Your task to perform on an android device: Check the news Image 0: 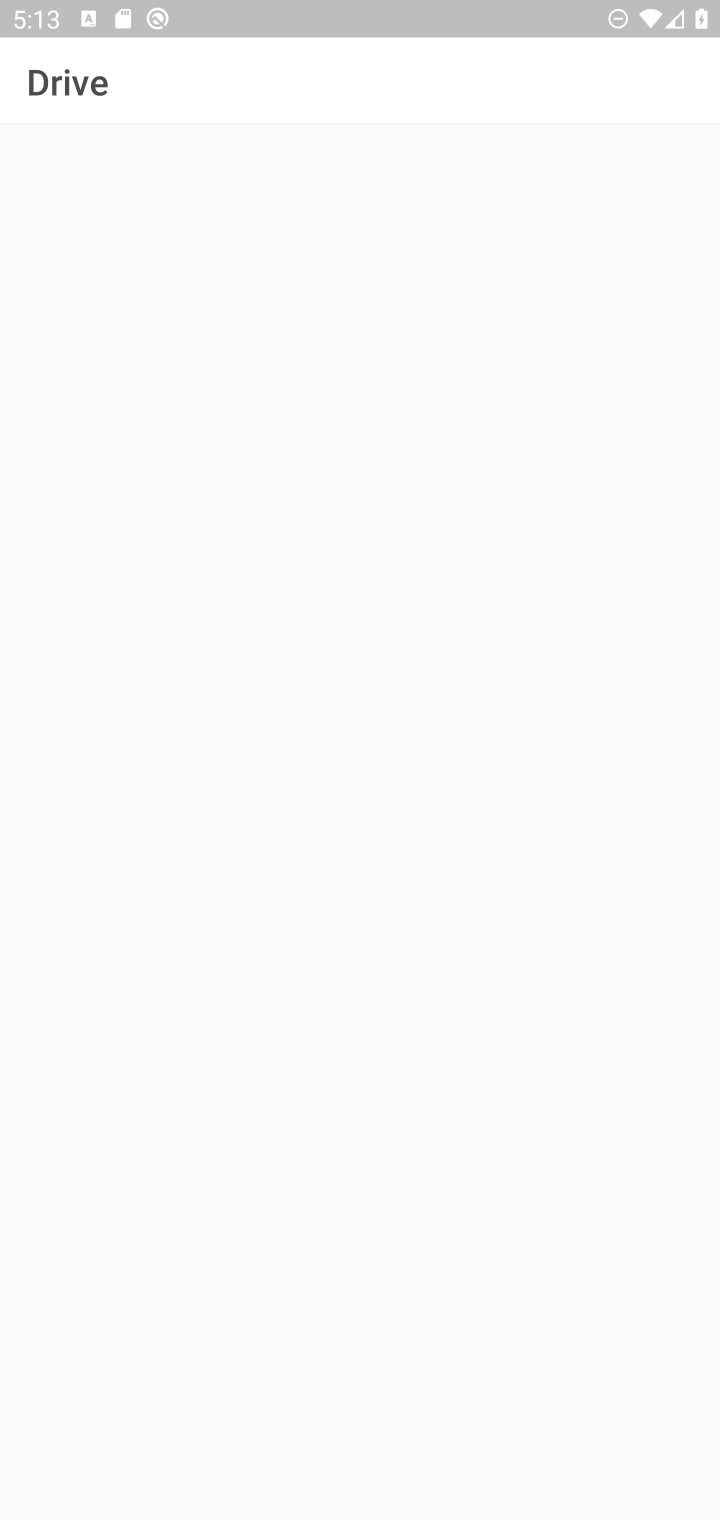
Step 0: press home button
Your task to perform on an android device: Check the news Image 1: 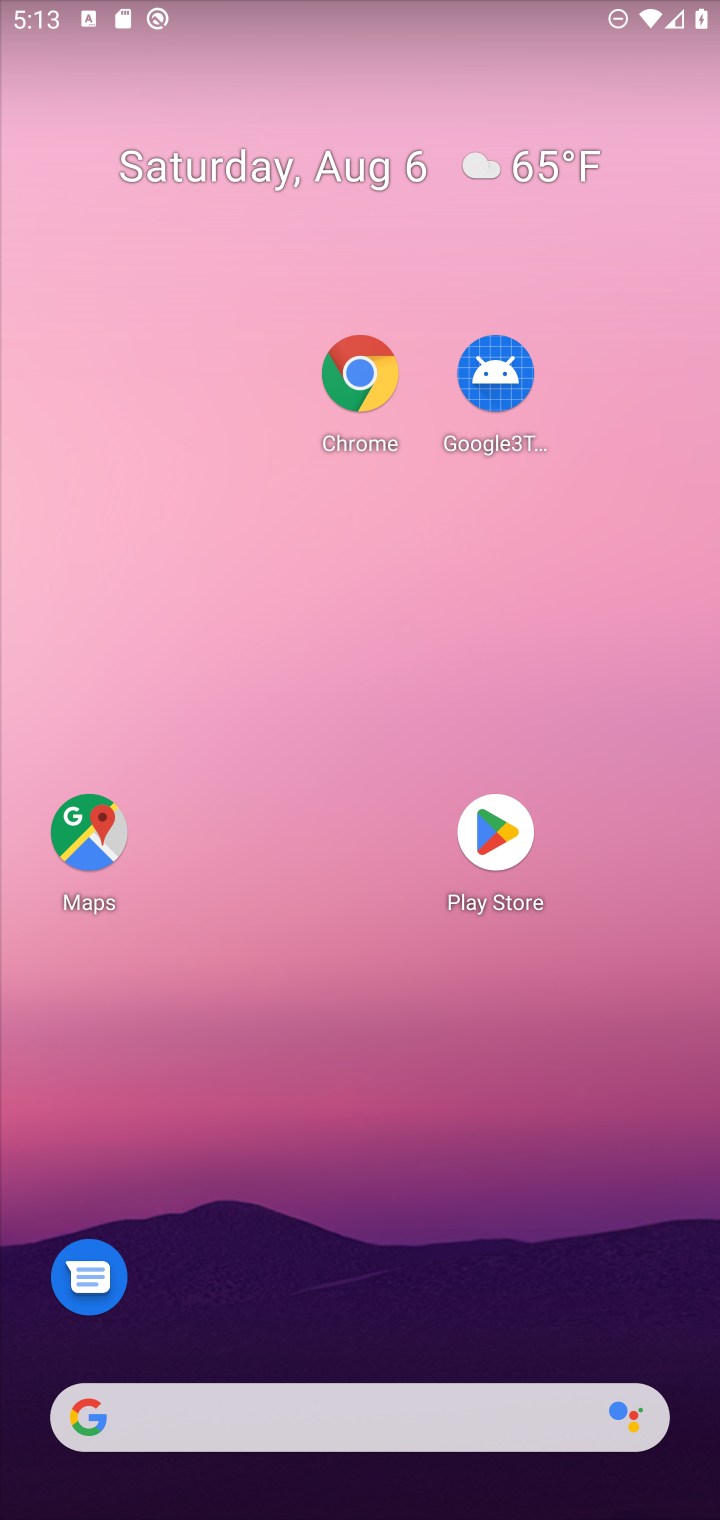
Step 1: drag from (295, 1403) to (422, 107)
Your task to perform on an android device: Check the news Image 2: 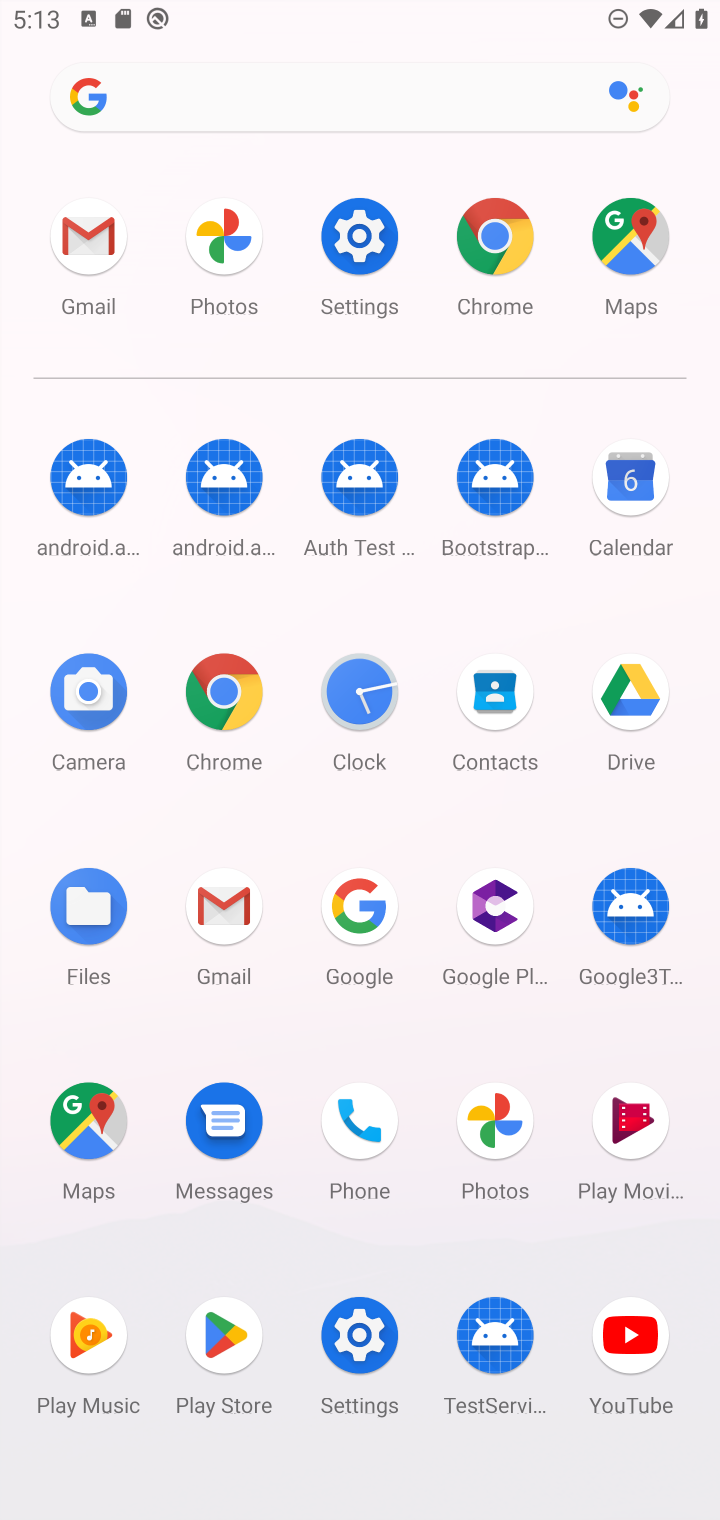
Step 2: click (220, 694)
Your task to perform on an android device: Check the news Image 3: 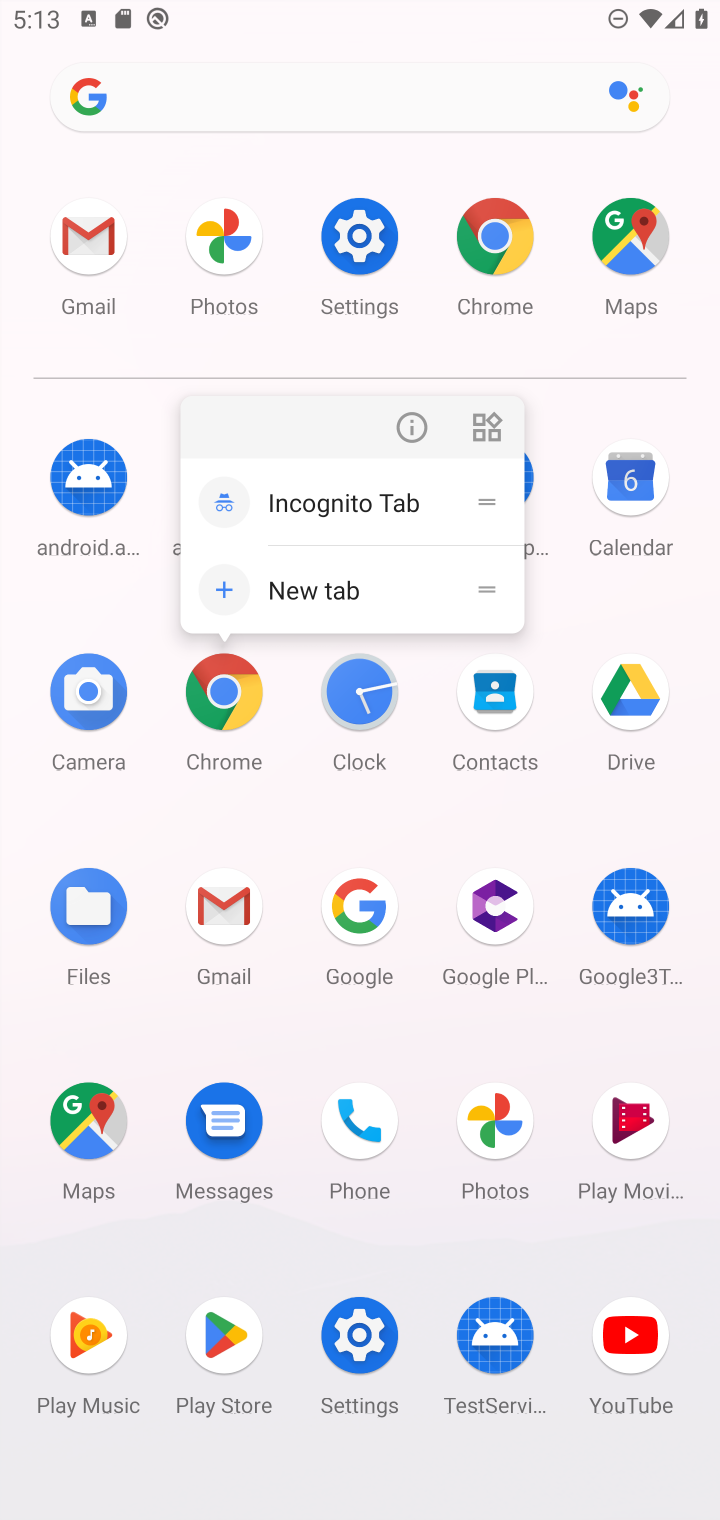
Step 3: click (215, 719)
Your task to perform on an android device: Check the news Image 4: 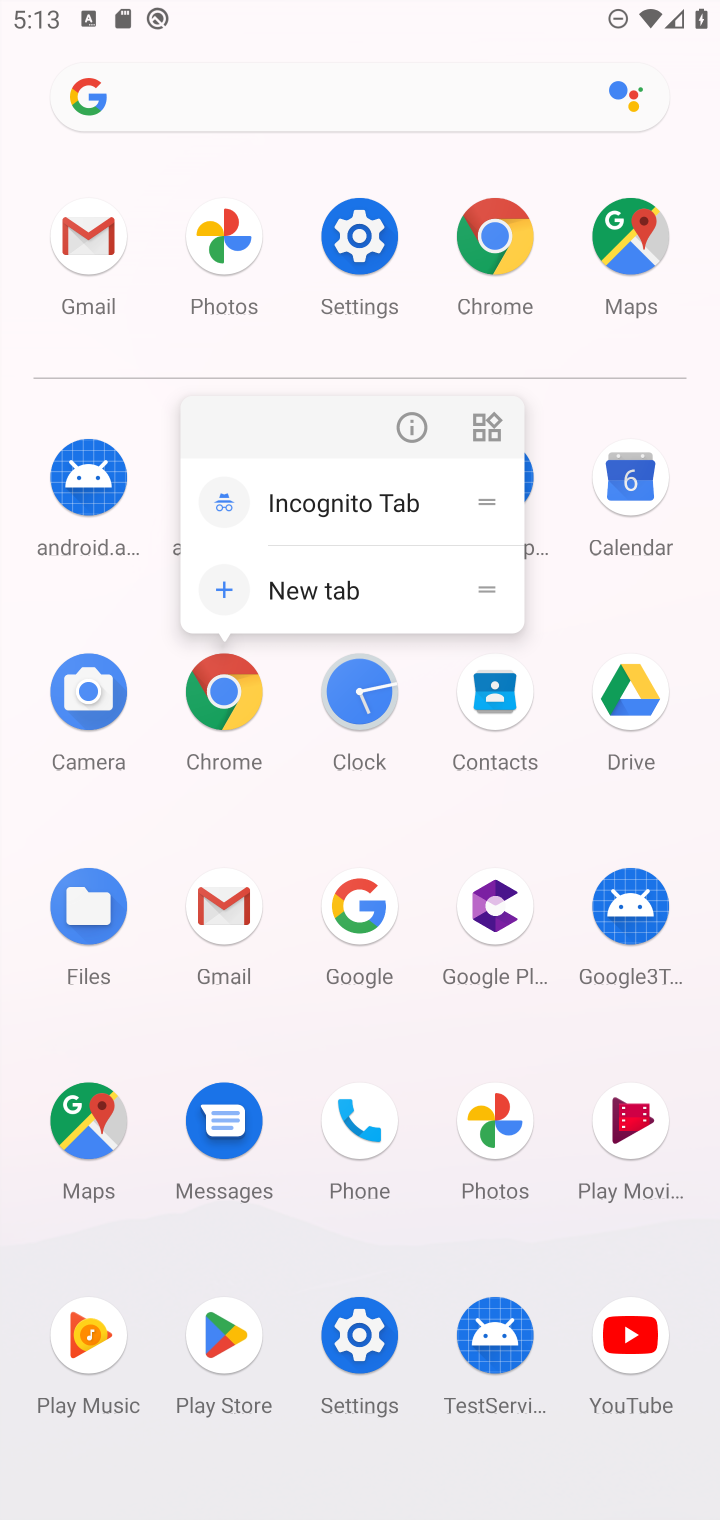
Step 4: click (248, 666)
Your task to perform on an android device: Check the news Image 5: 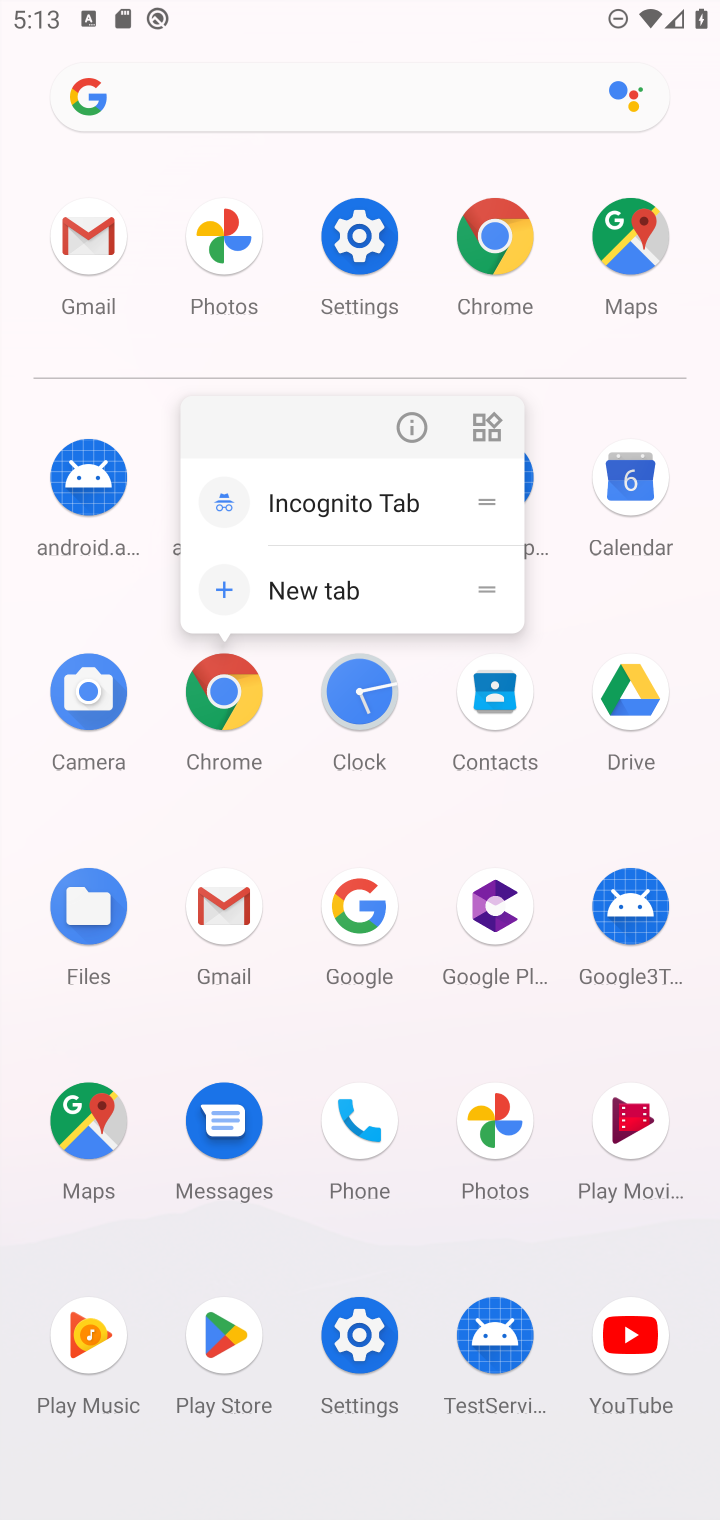
Step 5: click (233, 678)
Your task to perform on an android device: Check the news Image 6: 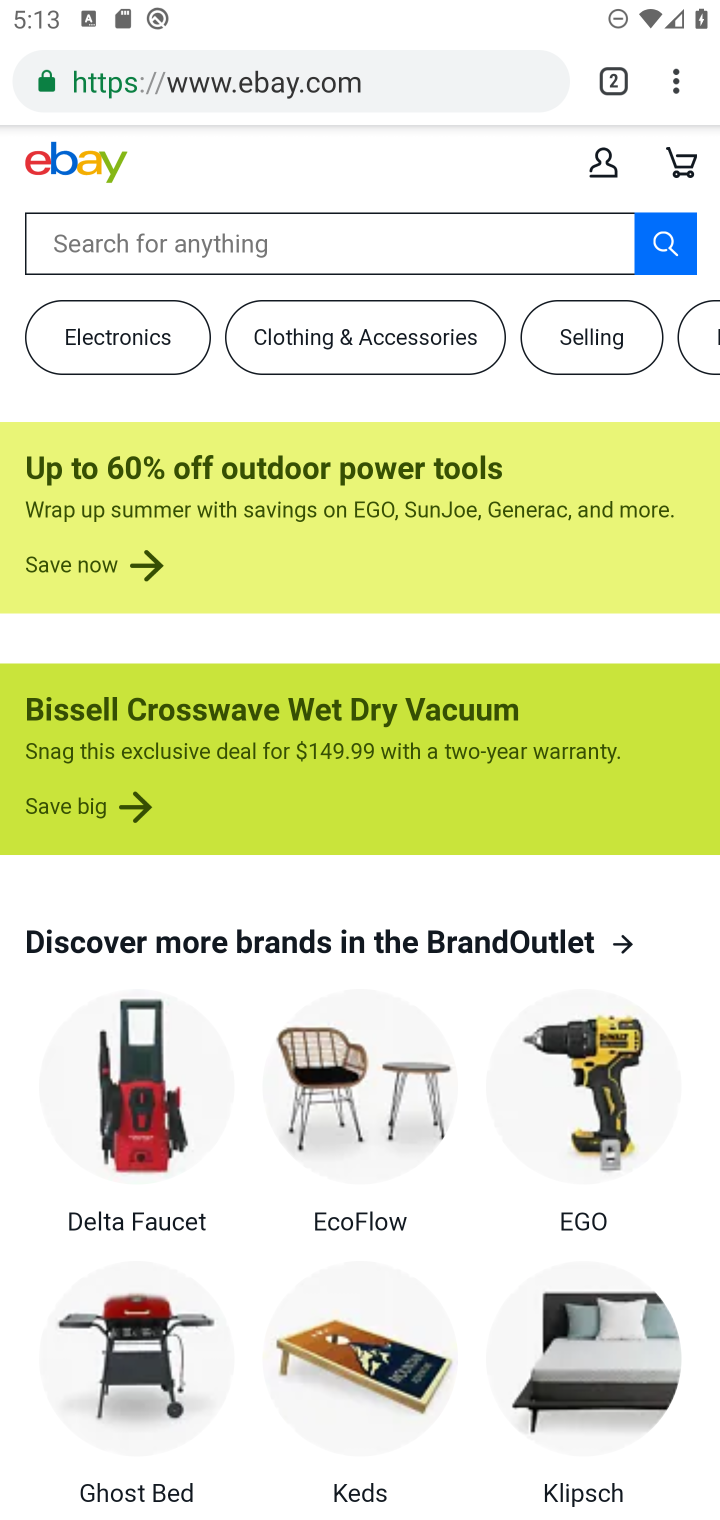
Step 6: click (312, 82)
Your task to perform on an android device: Check the news Image 7: 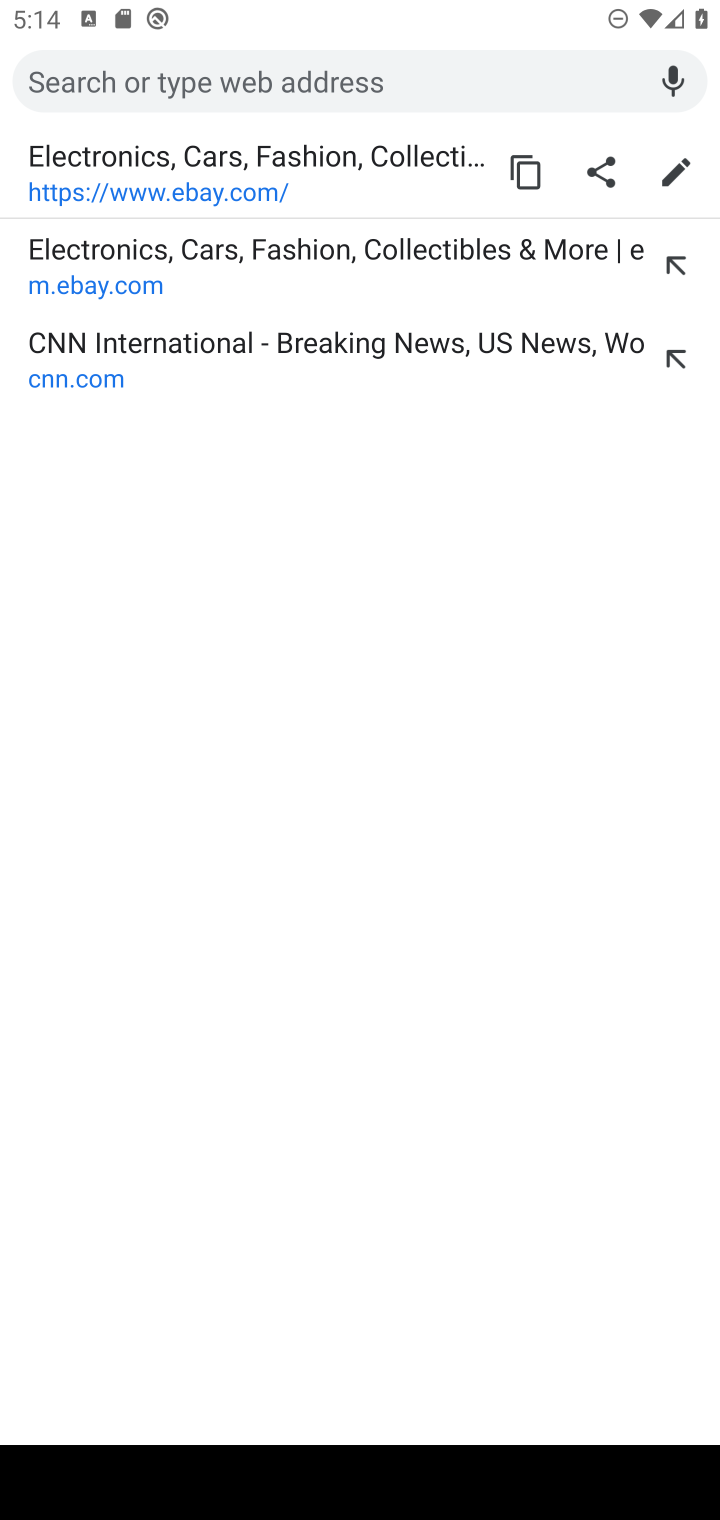
Step 7: type "check the news"
Your task to perform on an android device: Check the news Image 8: 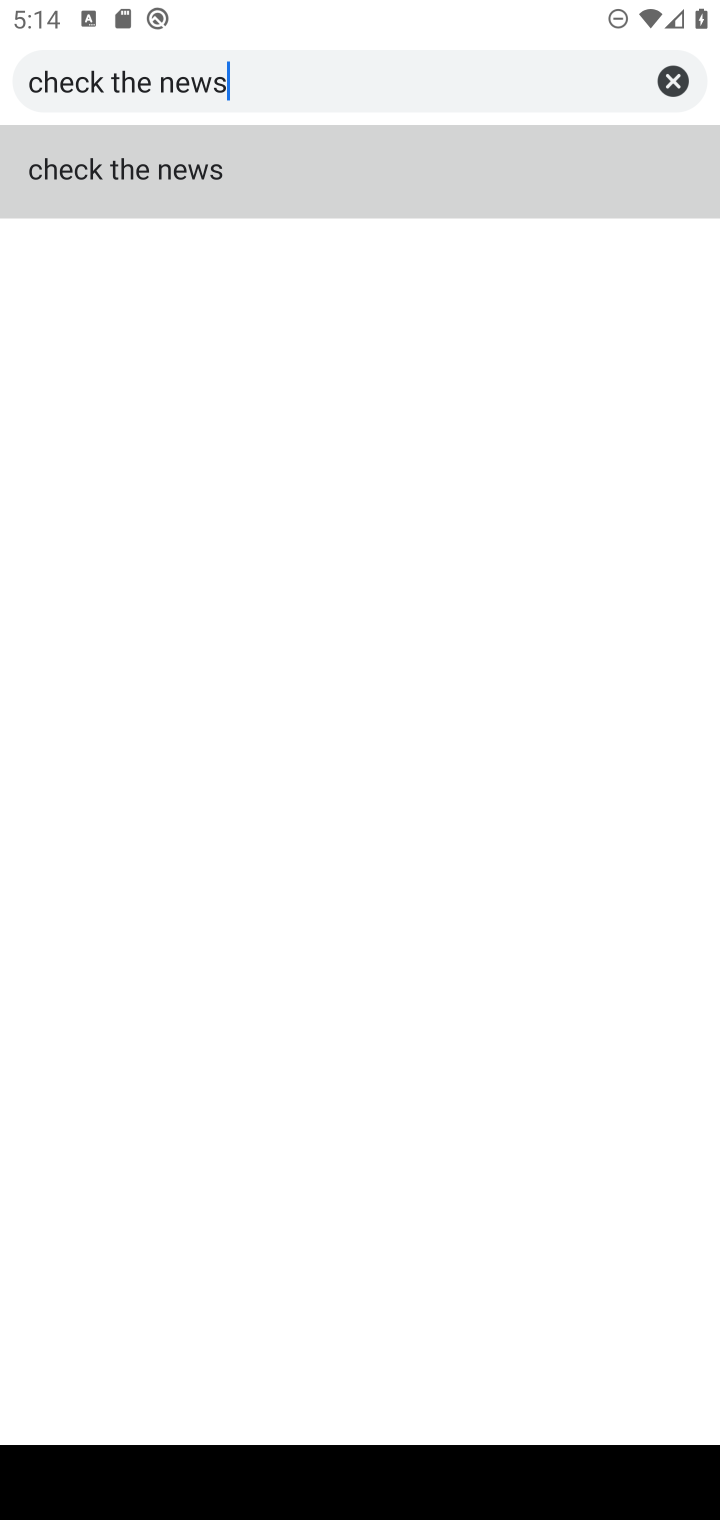
Step 8: click (301, 175)
Your task to perform on an android device: Check the news Image 9: 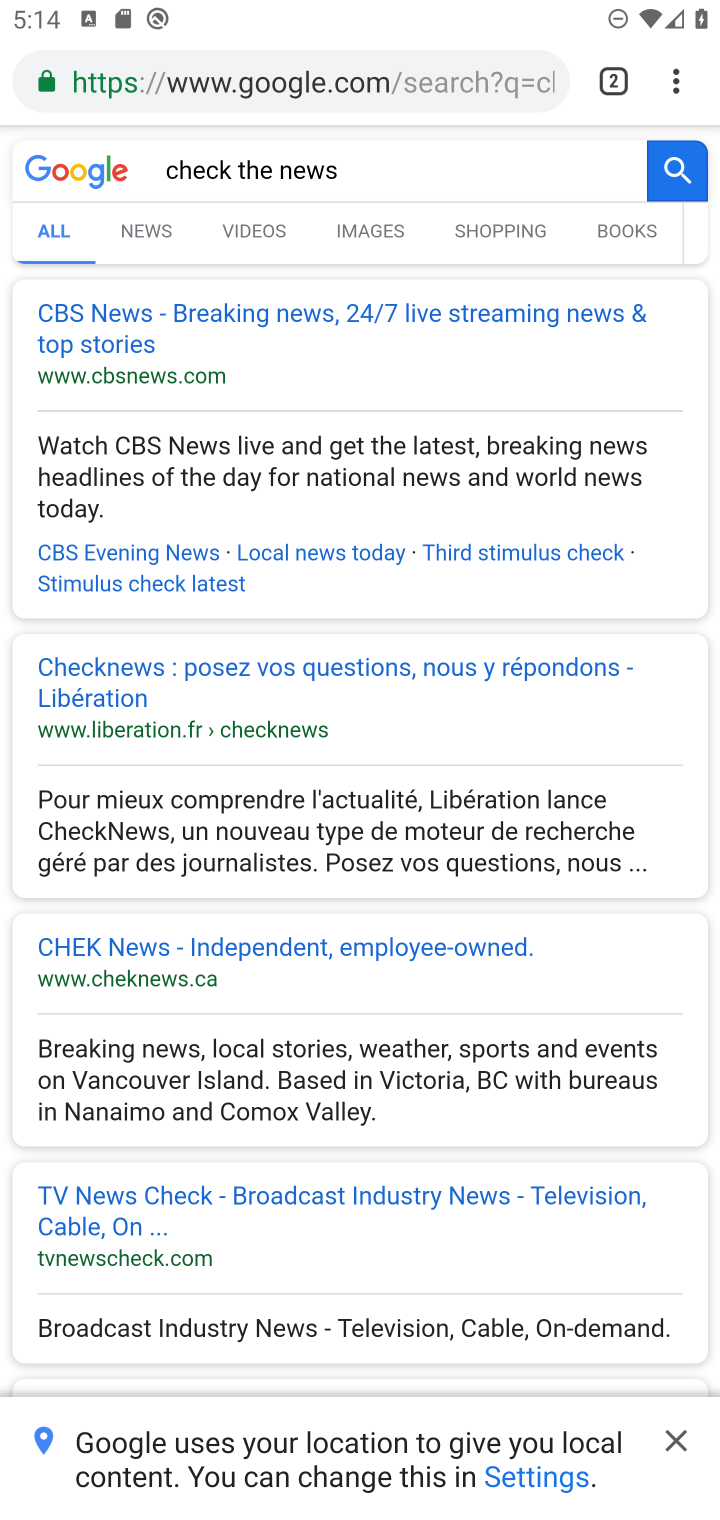
Step 9: task complete